Your task to perform on an android device: Go to Reddit.com Image 0: 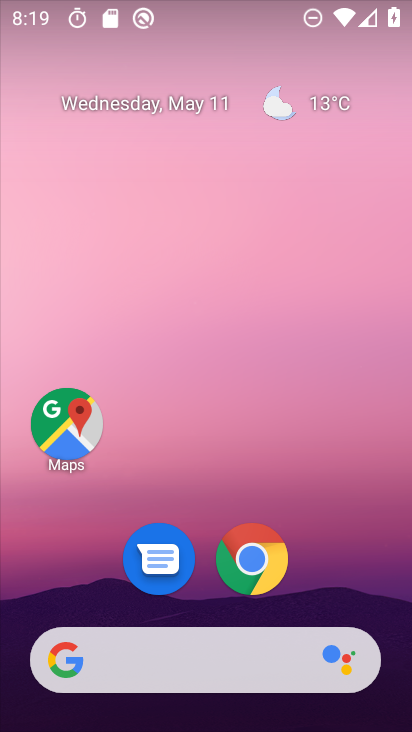
Step 0: click (263, 568)
Your task to perform on an android device: Go to Reddit.com Image 1: 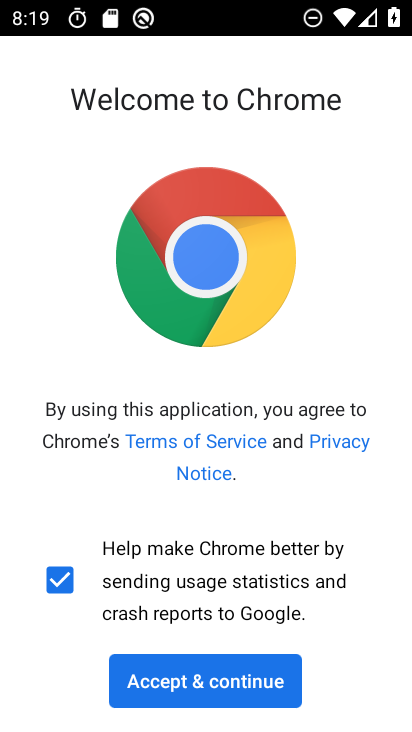
Step 1: click (246, 687)
Your task to perform on an android device: Go to Reddit.com Image 2: 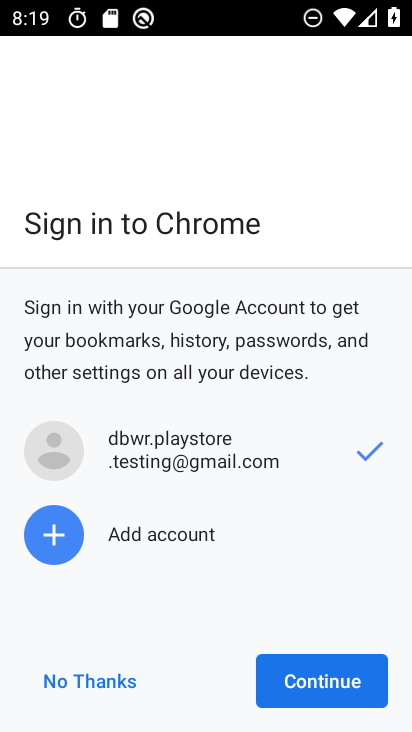
Step 2: click (293, 678)
Your task to perform on an android device: Go to Reddit.com Image 3: 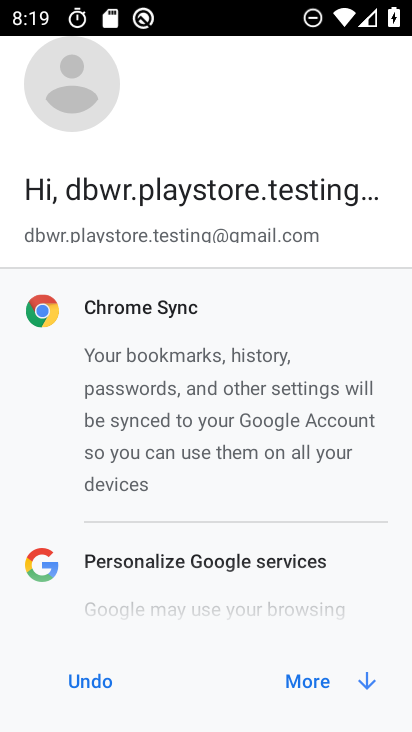
Step 3: click (306, 674)
Your task to perform on an android device: Go to Reddit.com Image 4: 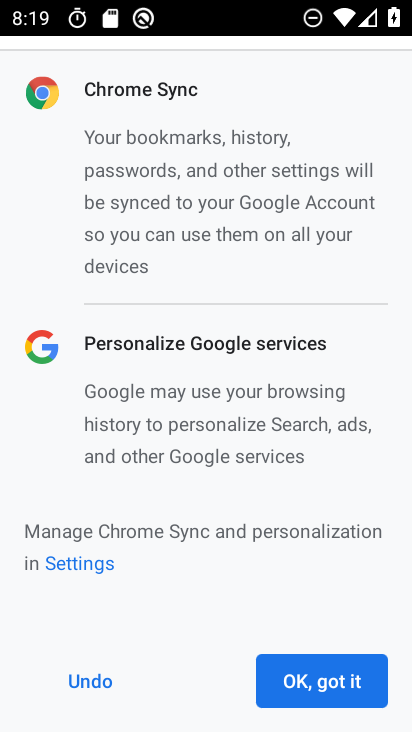
Step 4: click (307, 675)
Your task to perform on an android device: Go to Reddit.com Image 5: 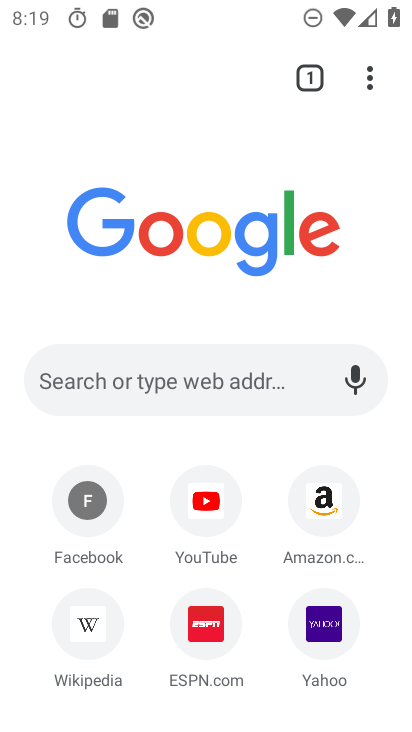
Step 5: click (268, 363)
Your task to perform on an android device: Go to Reddit.com Image 6: 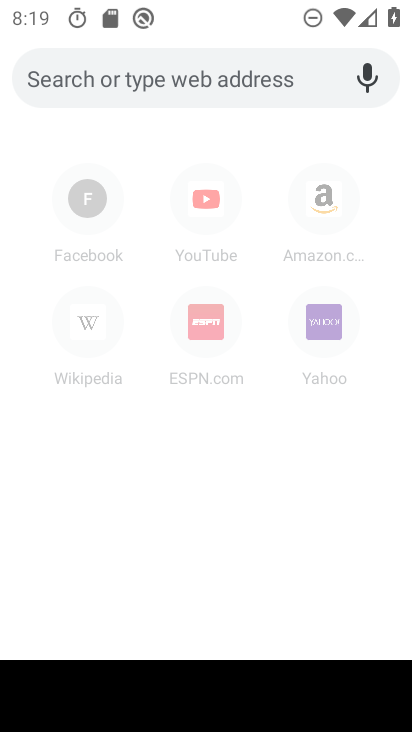
Step 6: type "reddit.com"
Your task to perform on an android device: Go to Reddit.com Image 7: 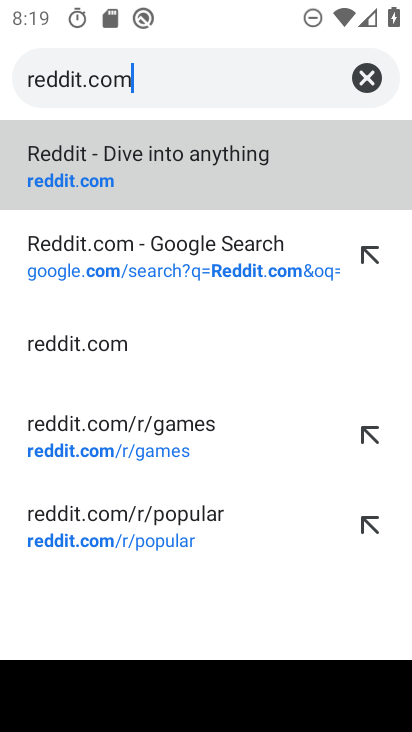
Step 7: click (226, 175)
Your task to perform on an android device: Go to Reddit.com Image 8: 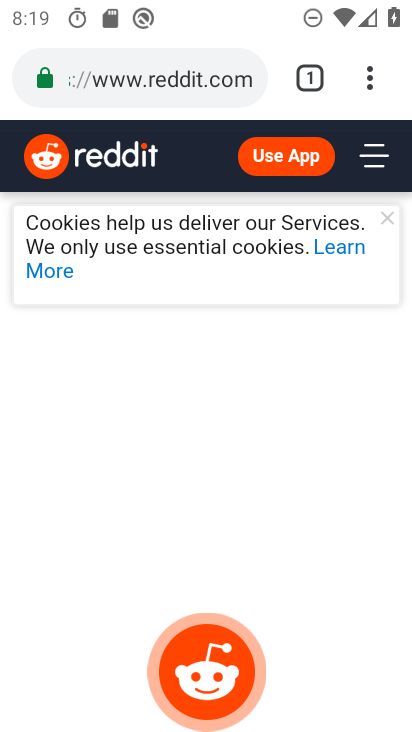
Step 8: task complete